Your task to perform on an android device: change the upload size in google photos Image 0: 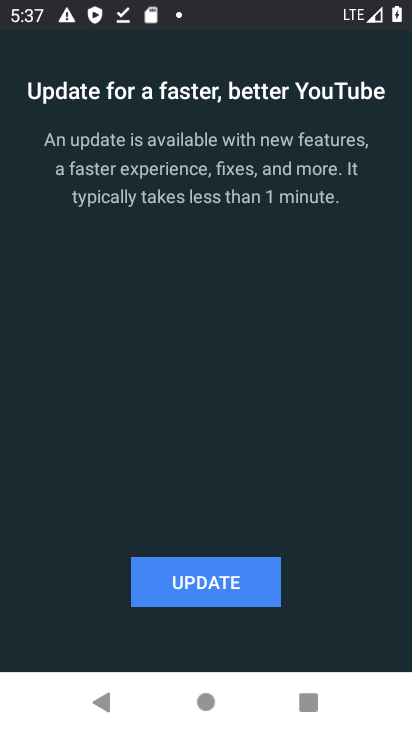
Step 0: drag from (171, 631) to (248, 245)
Your task to perform on an android device: change the upload size in google photos Image 1: 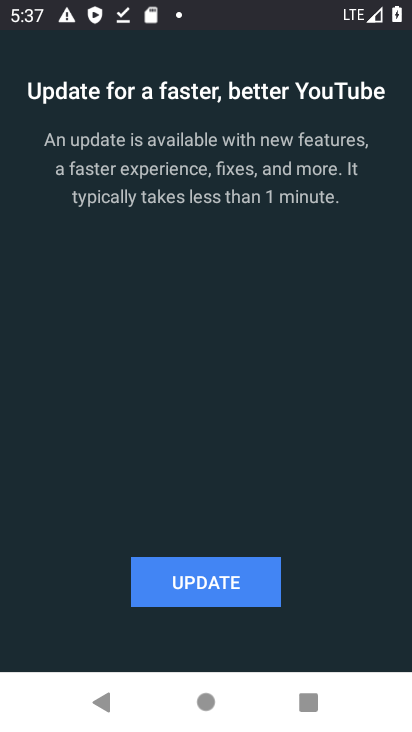
Step 1: press home button
Your task to perform on an android device: change the upload size in google photos Image 2: 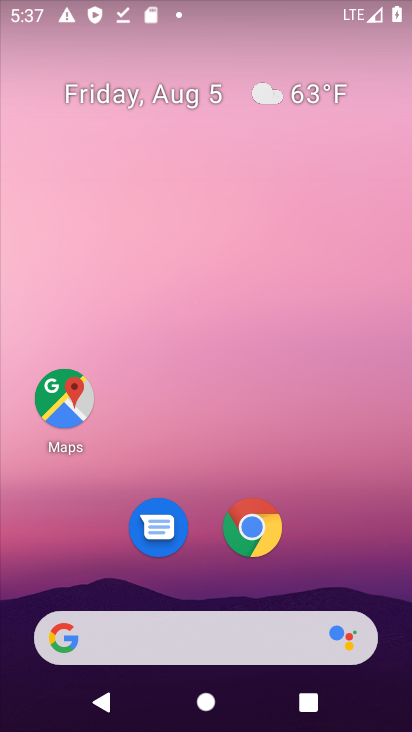
Step 2: drag from (199, 572) to (220, 244)
Your task to perform on an android device: change the upload size in google photos Image 3: 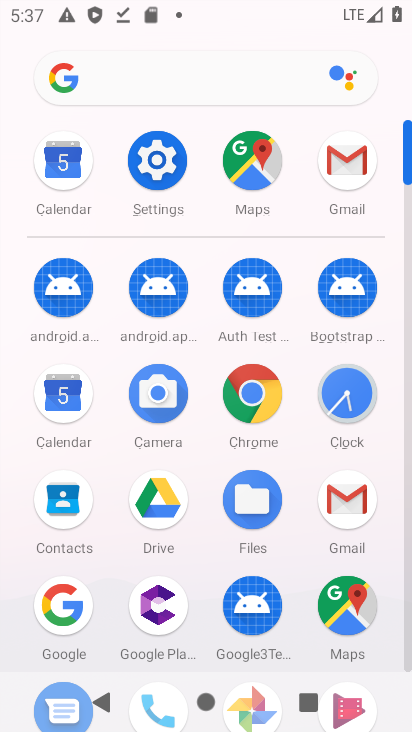
Step 3: drag from (198, 551) to (240, 273)
Your task to perform on an android device: change the upload size in google photos Image 4: 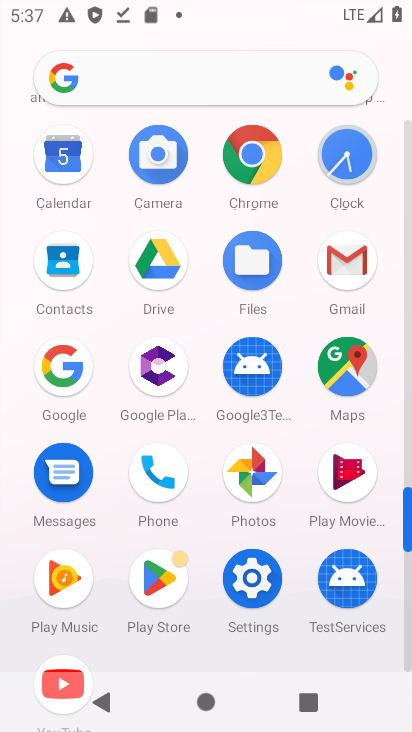
Step 4: click (261, 474)
Your task to perform on an android device: change the upload size in google photos Image 5: 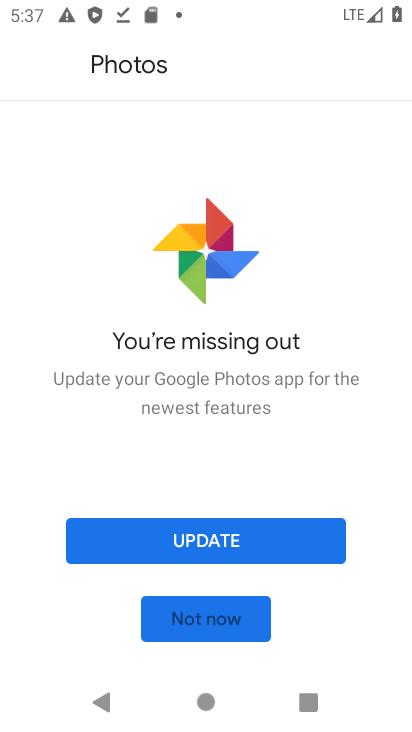
Step 5: click (198, 610)
Your task to perform on an android device: change the upload size in google photos Image 6: 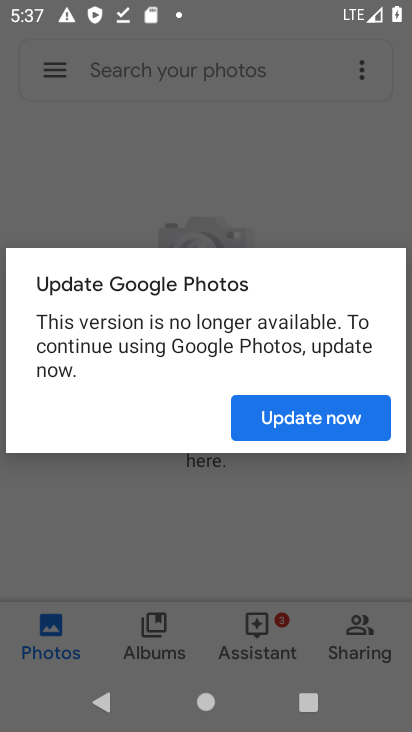
Step 6: click (284, 416)
Your task to perform on an android device: change the upload size in google photos Image 7: 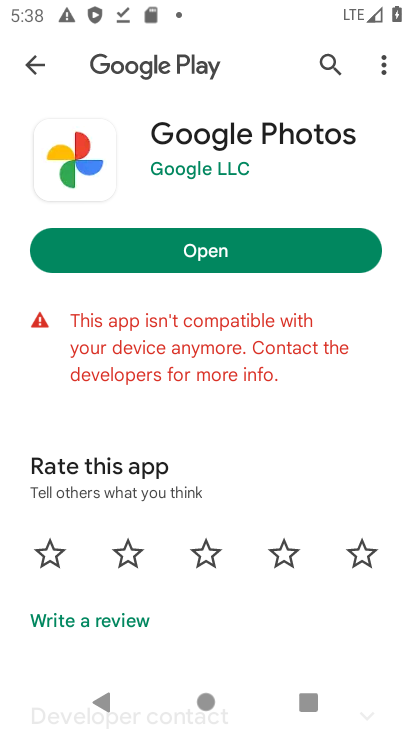
Step 7: press back button
Your task to perform on an android device: change the upload size in google photos Image 8: 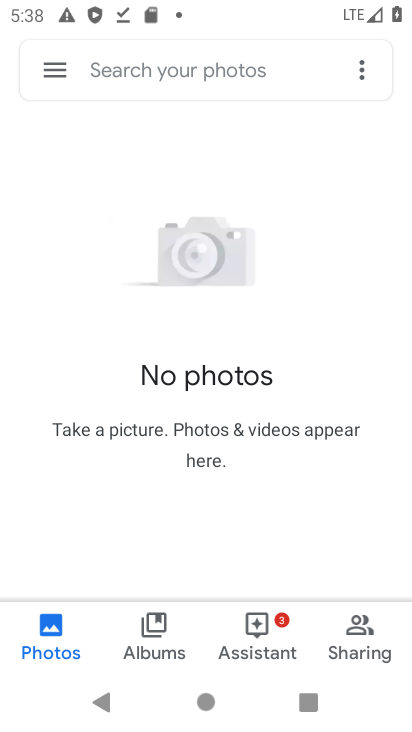
Step 8: click (57, 61)
Your task to perform on an android device: change the upload size in google photos Image 9: 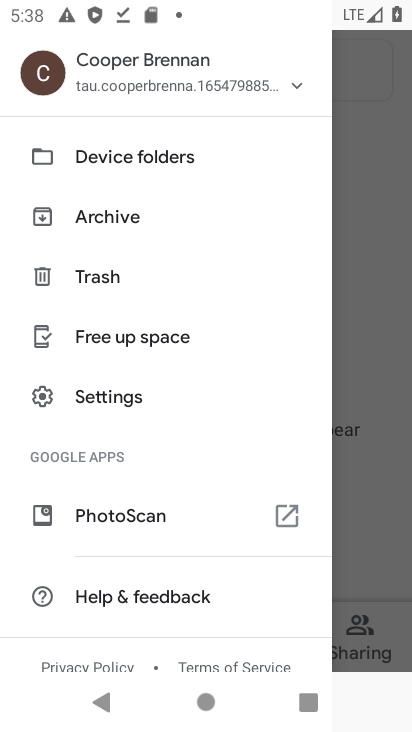
Step 9: click (102, 396)
Your task to perform on an android device: change the upload size in google photos Image 10: 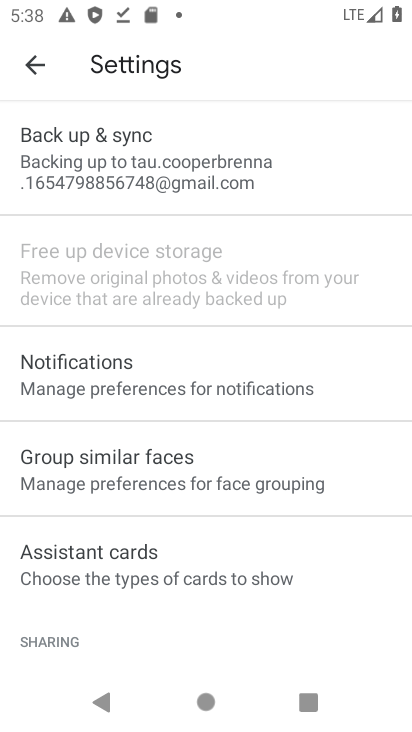
Step 10: click (205, 151)
Your task to perform on an android device: change the upload size in google photos Image 11: 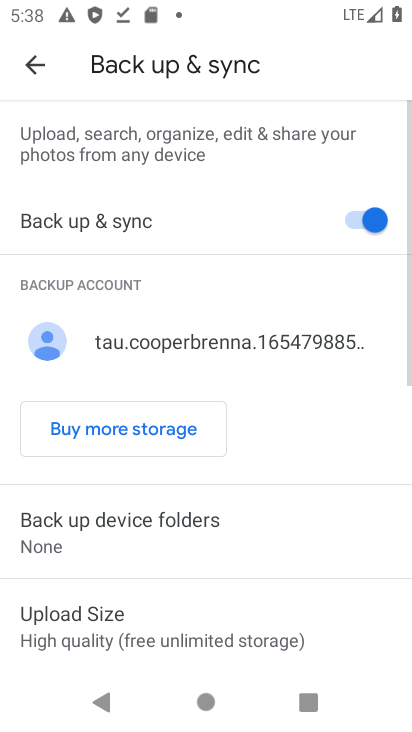
Step 11: drag from (115, 565) to (173, 235)
Your task to perform on an android device: change the upload size in google photos Image 12: 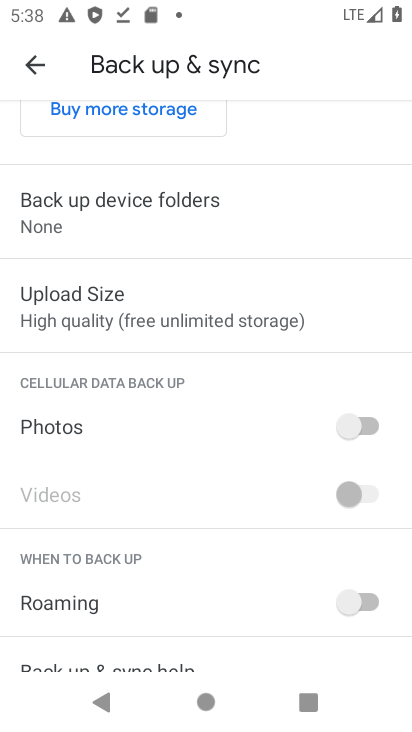
Step 12: click (138, 294)
Your task to perform on an android device: change the upload size in google photos Image 13: 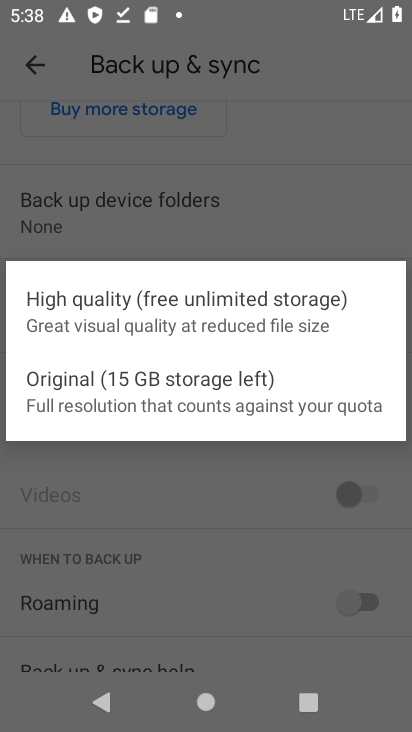
Step 13: click (143, 305)
Your task to perform on an android device: change the upload size in google photos Image 14: 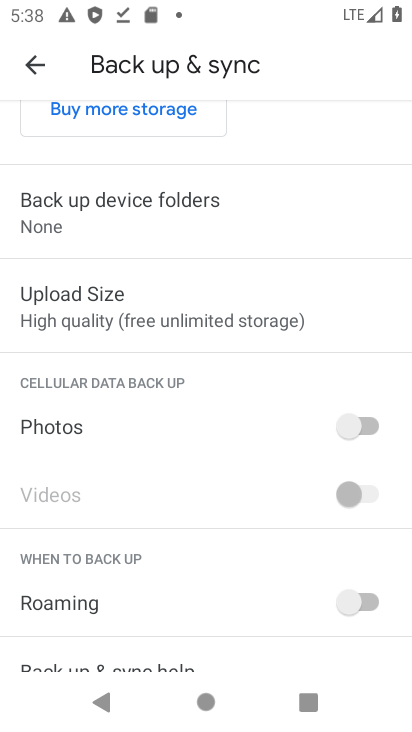
Step 14: task complete